Your task to perform on an android device: Go to settings Image 0: 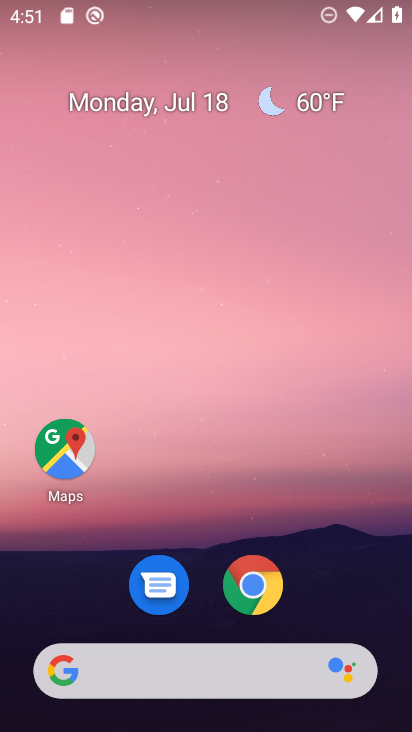
Step 0: drag from (329, 558) to (320, 0)
Your task to perform on an android device: Go to settings Image 1: 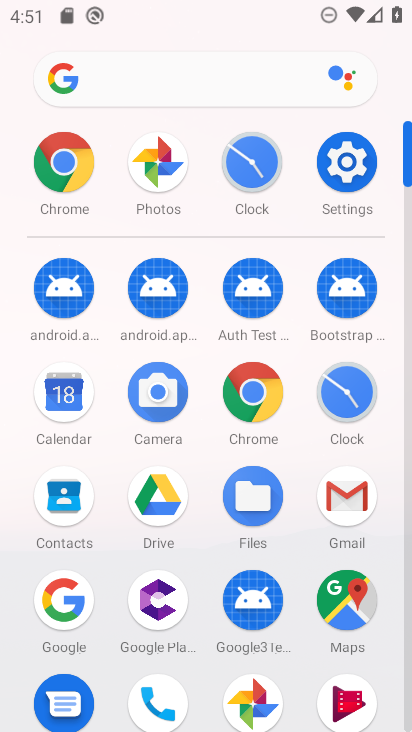
Step 1: click (352, 151)
Your task to perform on an android device: Go to settings Image 2: 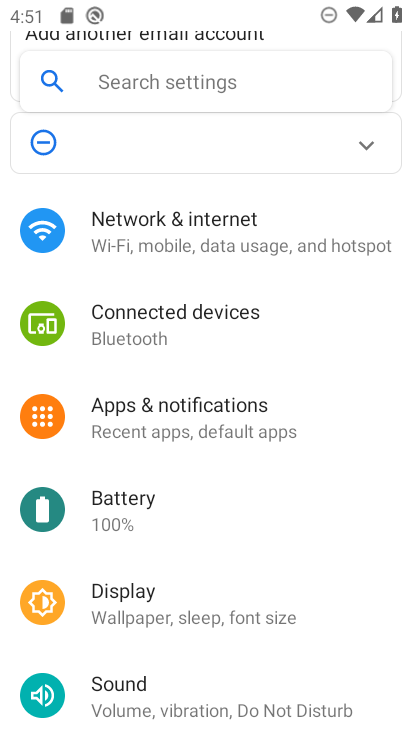
Step 2: task complete